Your task to perform on an android device: change notification settings in the gmail app Image 0: 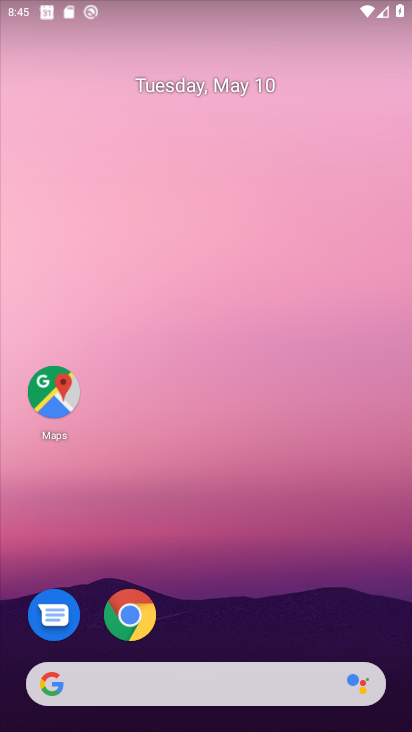
Step 0: drag from (216, 658) to (179, 145)
Your task to perform on an android device: change notification settings in the gmail app Image 1: 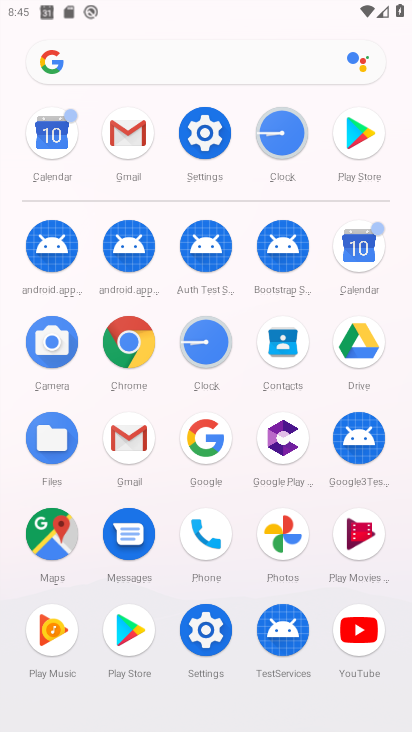
Step 1: click (116, 449)
Your task to perform on an android device: change notification settings in the gmail app Image 2: 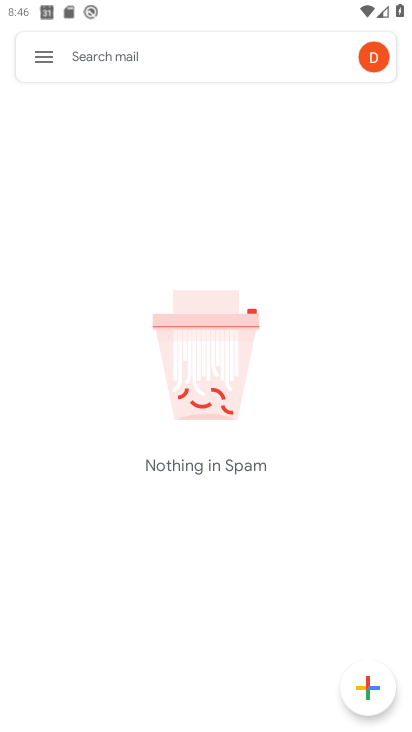
Step 2: drag from (215, 593) to (151, 166)
Your task to perform on an android device: change notification settings in the gmail app Image 3: 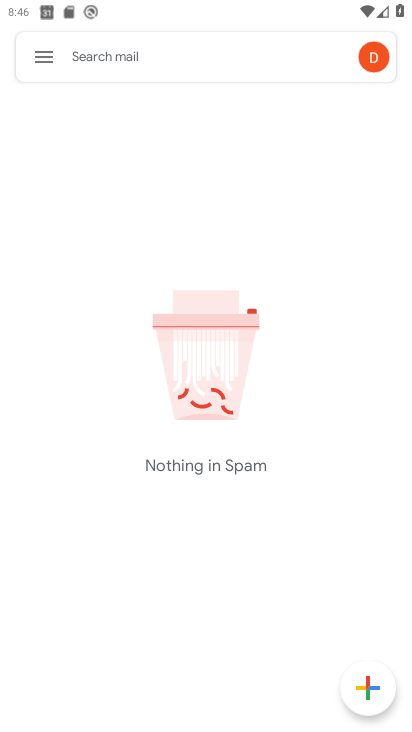
Step 3: click (231, 336)
Your task to perform on an android device: change notification settings in the gmail app Image 4: 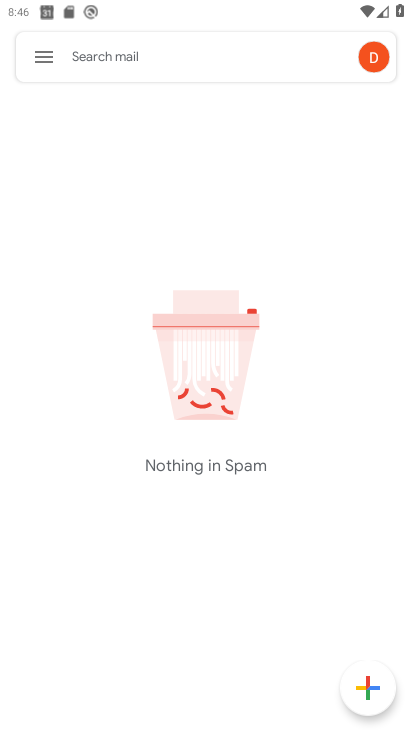
Step 4: click (316, 385)
Your task to perform on an android device: change notification settings in the gmail app Image 5: 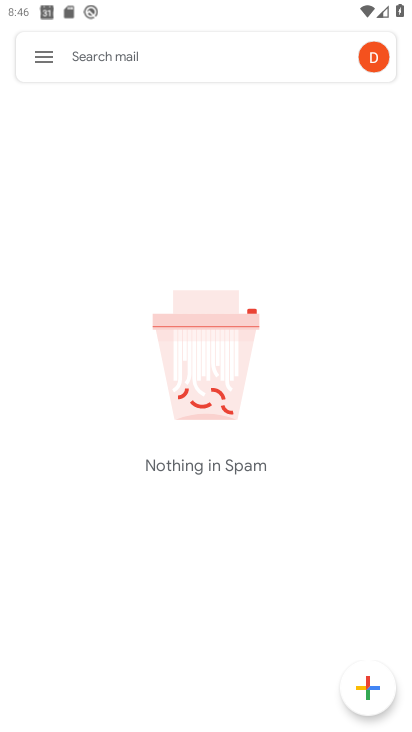
Step 5: click (312, 385)
Your task to perform on an android device: change notification settings in the gmail app Image 6: 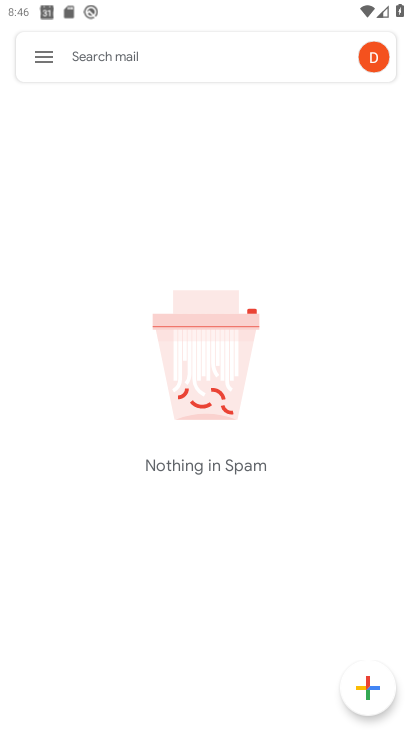
Step 6: click (33, 31)
Your task to perform on an android device: change notification settings in the gmail app Image 7: 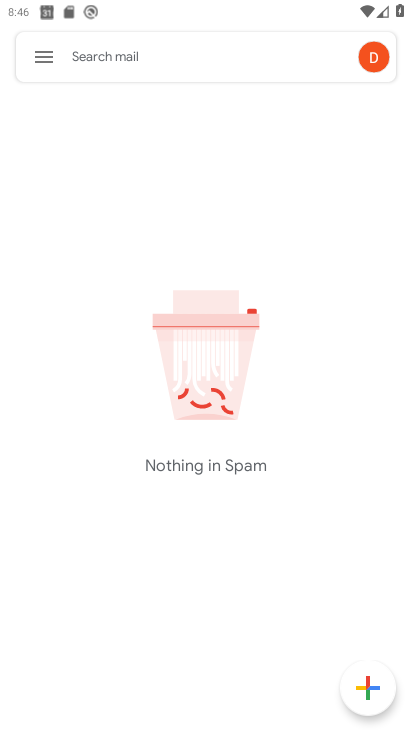
Step 7: click (32, 42)
Your task to perform on an android device: change notification settings in the gmail app Image 8: 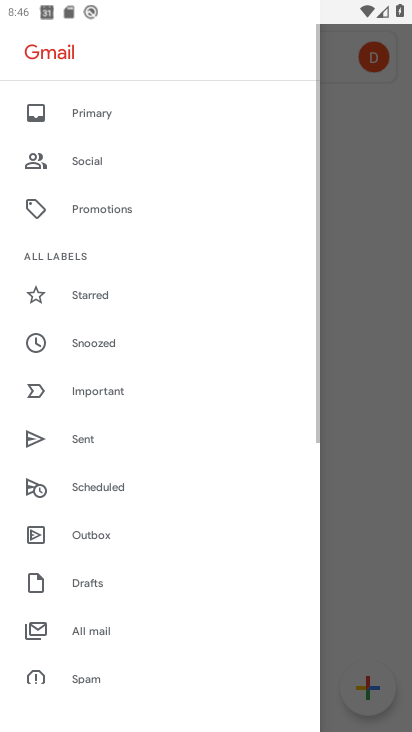
Step 8: drag from (165, 552) to (194, 157)
Your task to perform on an android device: change notification settings in the gmail app Image 9: 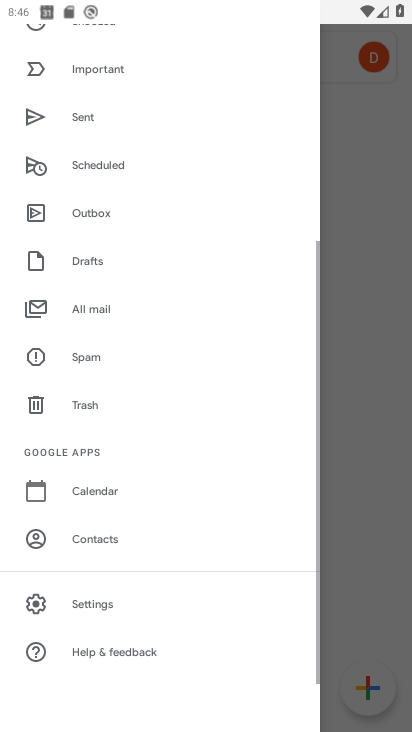
Step 9: click (92, 603)
Your task to perform on an android device: change notification settings in the gmail app Image 10: 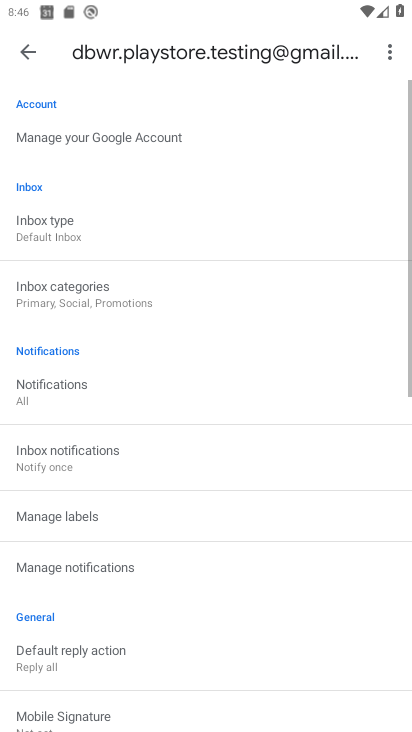
Step 10: drag from (180, 598) to (201, 116)
Your task to perform on an android device: change notification settings in the gmail app Image 11: 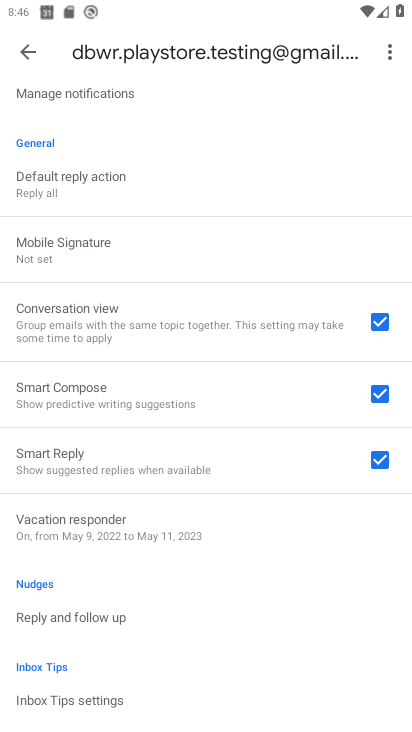
Step 11: drag from (162, 598) to (226, 71)
Your task to perform on an android device: change notification settings in the gmail app Image 12: 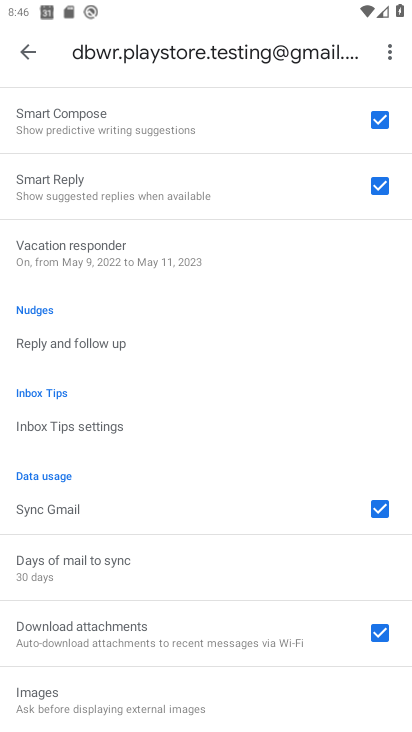
Step 12: drag from (127, 164) to (239, 723)
Your task to perform on an android device: change notification settings in the gmail app Image 13: 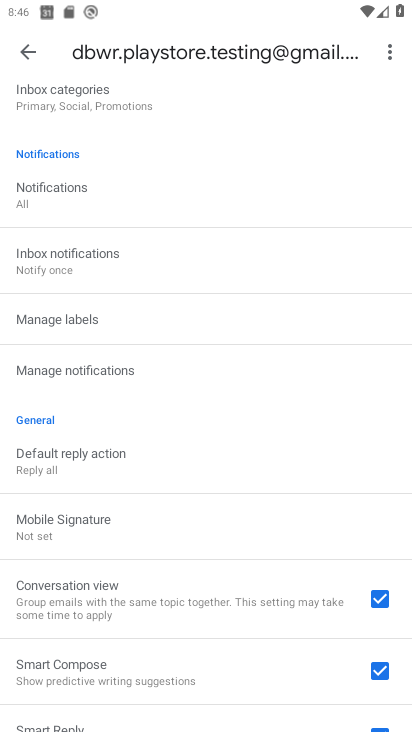
Step 13: click (108, 369)
Your task to perform on an android device: change notification settings in the gmail app Image 14: 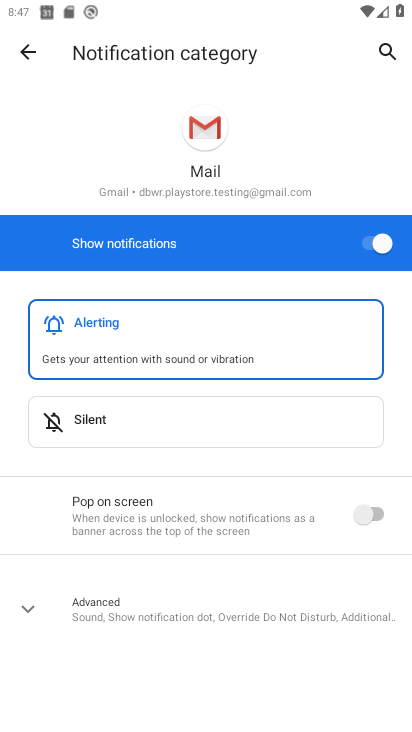
Step 14: click (371, 239)
Your task to perform on an android device: change notification settings in the gmail app Image 15: 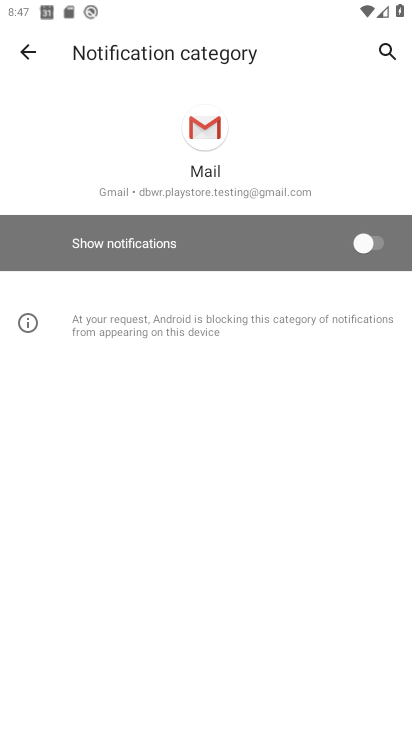
Step 15: task complete